Your task to perform on an android device: Open Reddit.com Image 0: 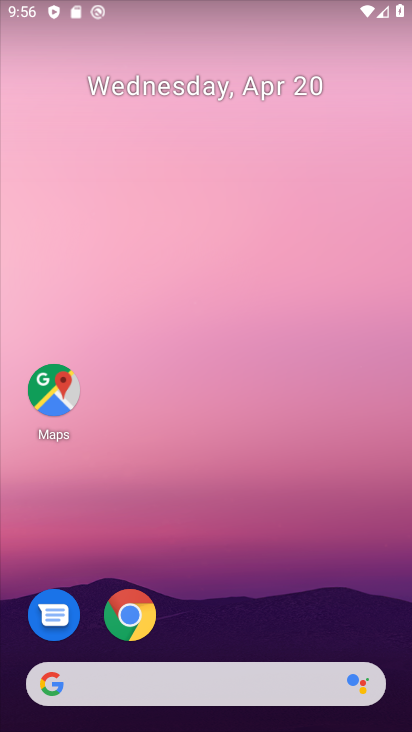
Step 0: click (136, 616)
Your task to perform on an android device: Open Reddit.com Image 1: 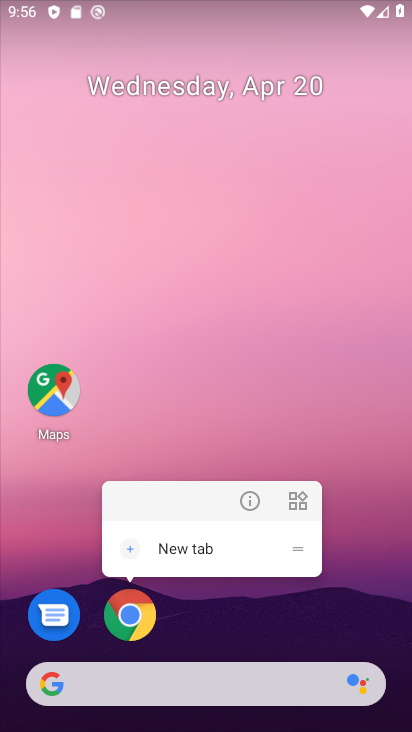
Step 1: click (133, 611)
Your task to perform on an android device: Open Reddit.com Image 2: 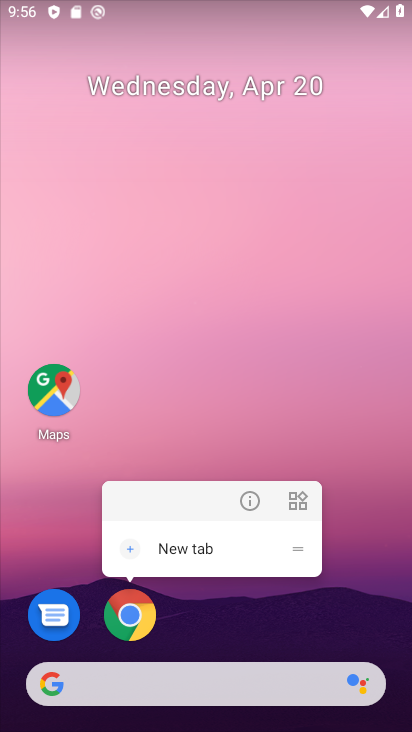
Step 2: click (133, 611)
Your task to perform on an android device: Open Reddit.com Image 3: 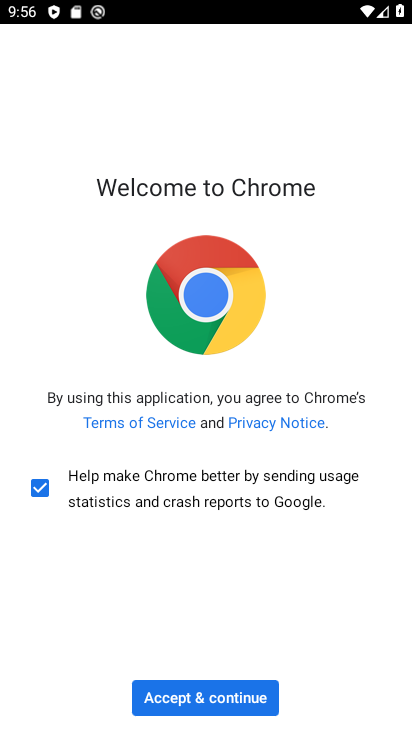
Step 3: click (228, 692)
Your task to perform on an android device: Open Reddit.com Image 4: 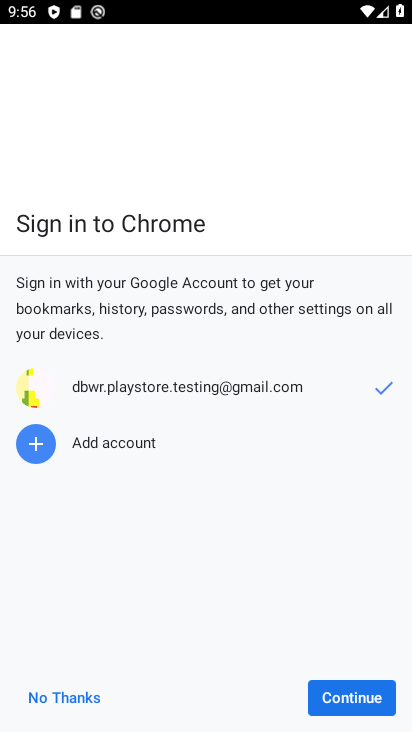
Step 4: click (351, 698)
Your task to perform on an android device: Open Reddit.com Image 5: 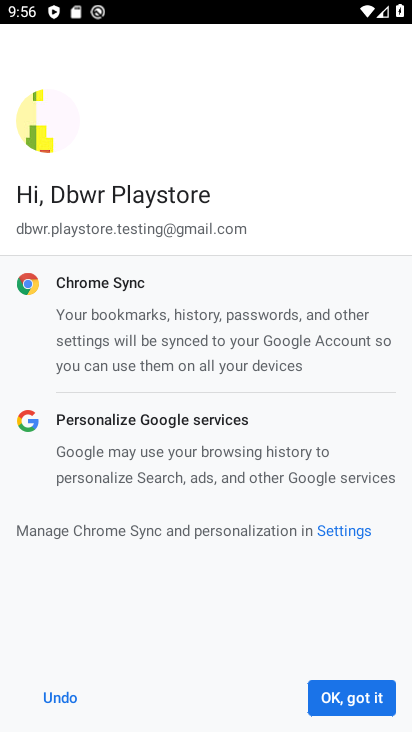
Step 5: click (351, 698)
Your task to perform on an android device: Open Reddit.com Image 6: 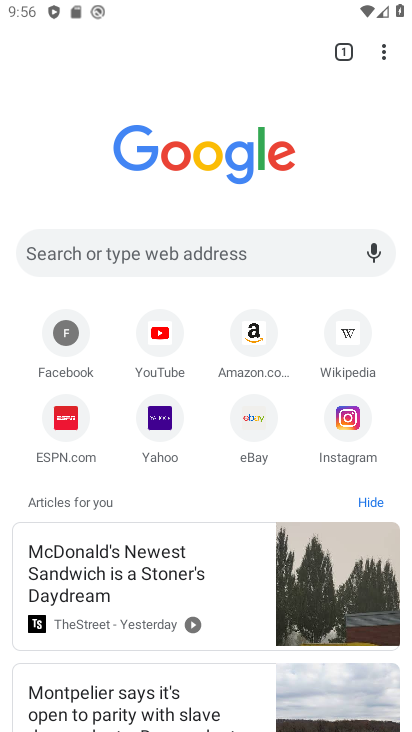
Step 6: click (239, 246)
Your task to perform on an android device: Open Reddit.com Image 7: 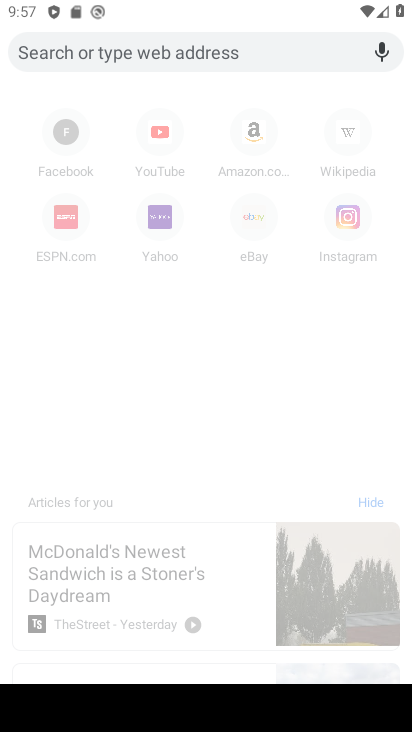
Step 7: type "Reddit.com"
Your task to perform on an android device: Open Reddit.com Image 8: 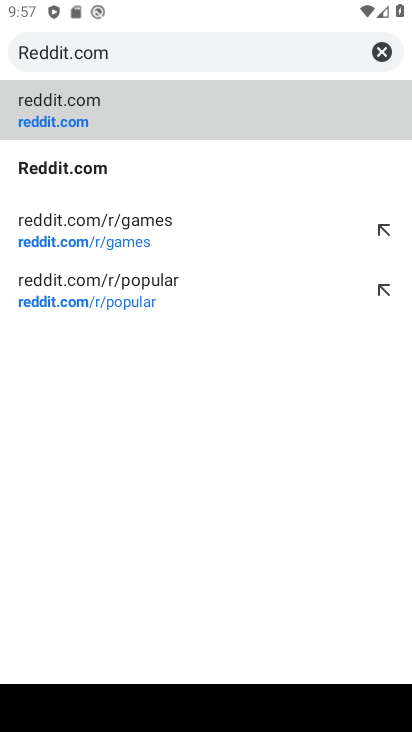
Step 8: click (95, 119)
Your task to perform on an android device: Open Reddit.com Image 9: 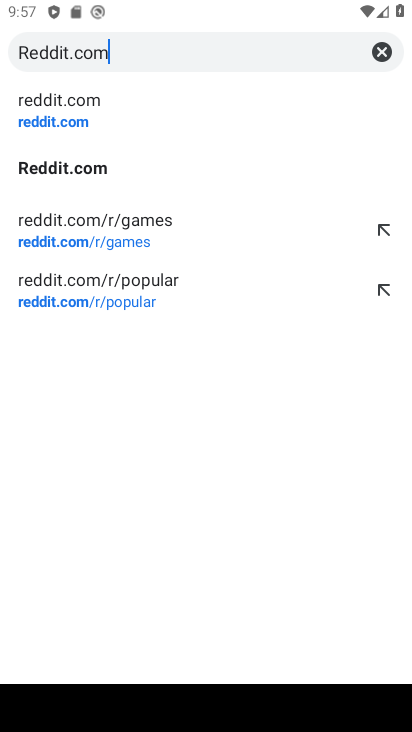
Step 9: click (82, 112)
Your task to perform on an android device: Open Reddit.com Image 10: 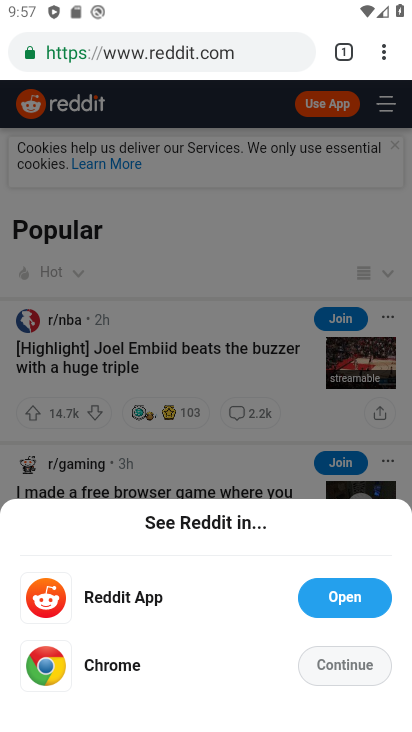
Step 10: task complete